Your task to perform on an android device: toggle data saver in the chrome app Image 0: 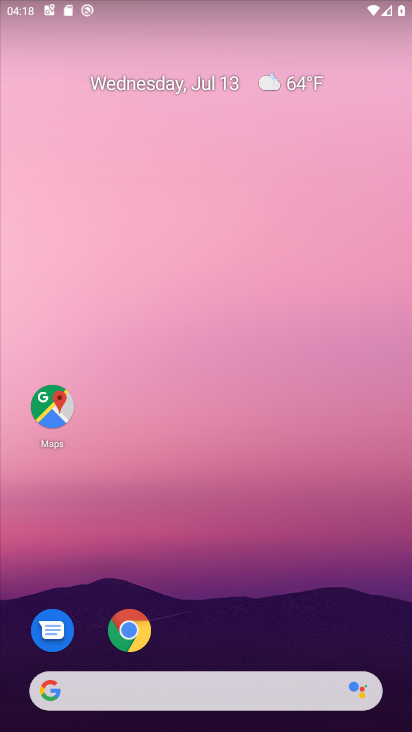
Step 0: click (129, 625)
Your task to perform on an android device: toggle data saver in the chrome app Image 1: 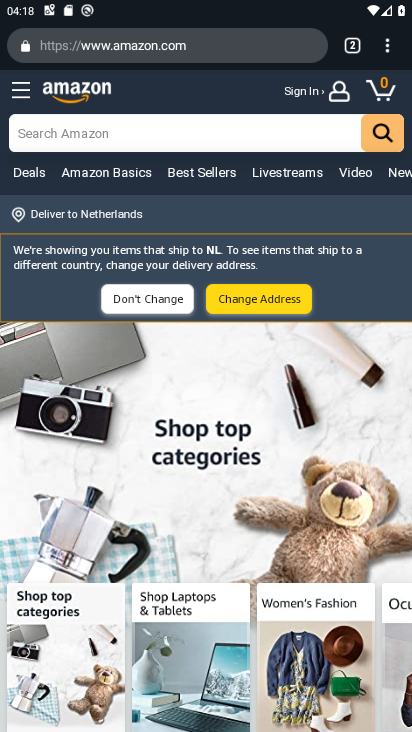
Step 1: click (391, 57)
Your task to perform on an android device: toggle data saver in the chrome app Image 2: 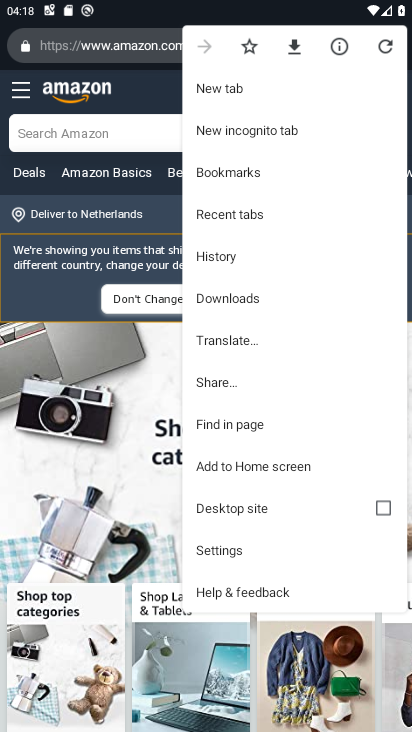
Step 2: click (229, 545)
Your task to perform on an android device: toggle data saver in the chrome app Image 3: 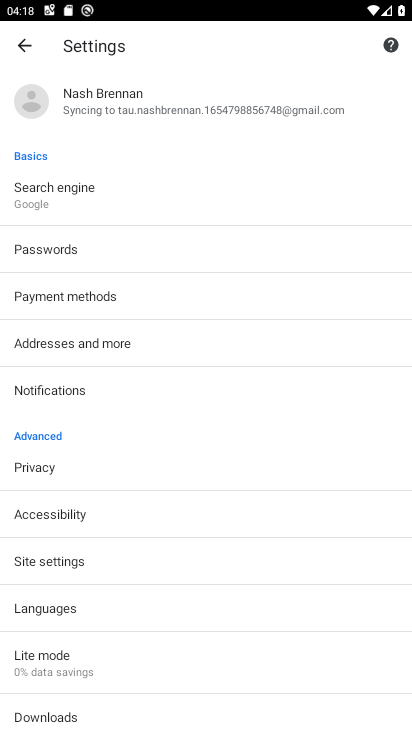
Step 3: click (87, 665)
Your task to perform on an android device: toggle data saver in the chrome app Image 4: 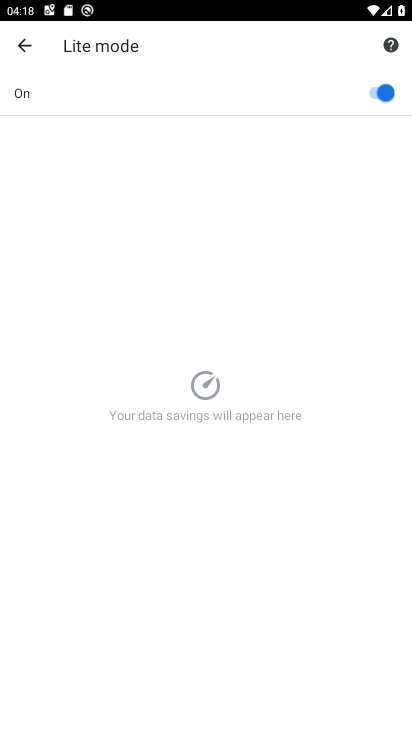
Step 4: click (389, 99)
Your task to perform on an android device: toggle data saver in the chrome app Image 5: 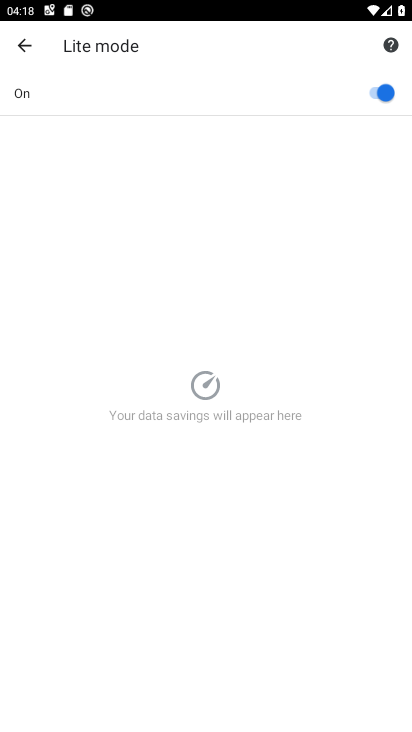
Step 5: click (389, 99)
Your task to perform on an android device: toggle data saver in the chrome app Image 6: 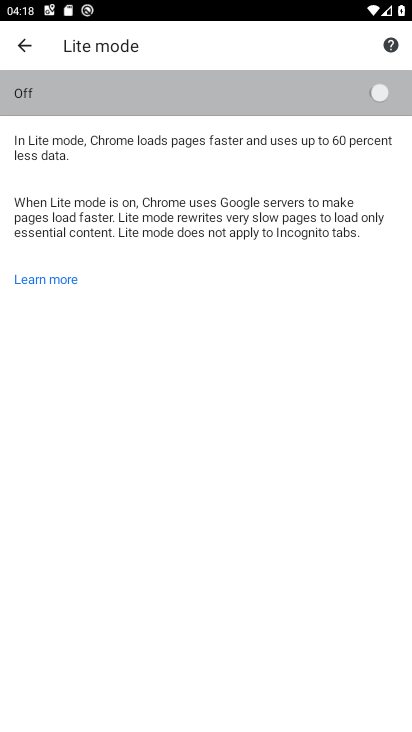
Step 6: click (389, 99)
Your task to perform on an android device: toggle data saver in the chrome app Image 7: 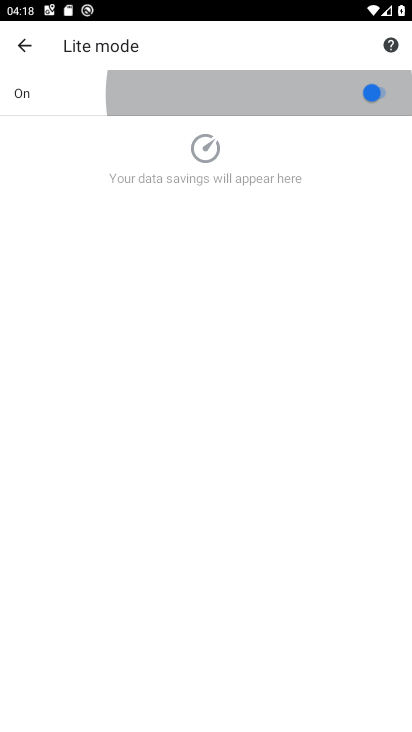
Step 7: click (389, 99)
Your task to perform on an android device: toggle data saver in the chrome app Image 8: 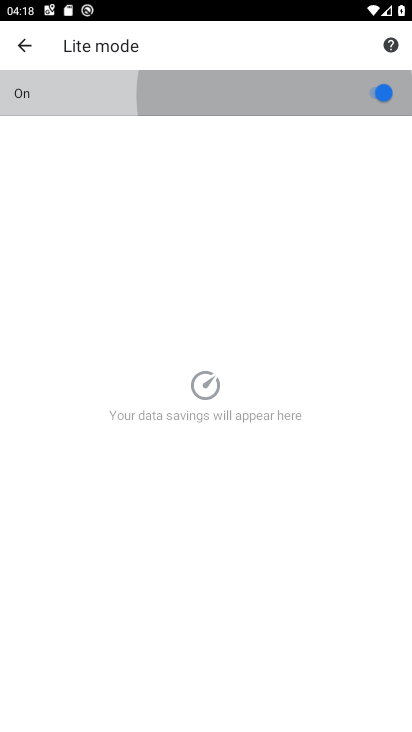
Step 8: click (389, 99)
Your task to perform on an android device: toggle data saver in the chrome app Image 9: 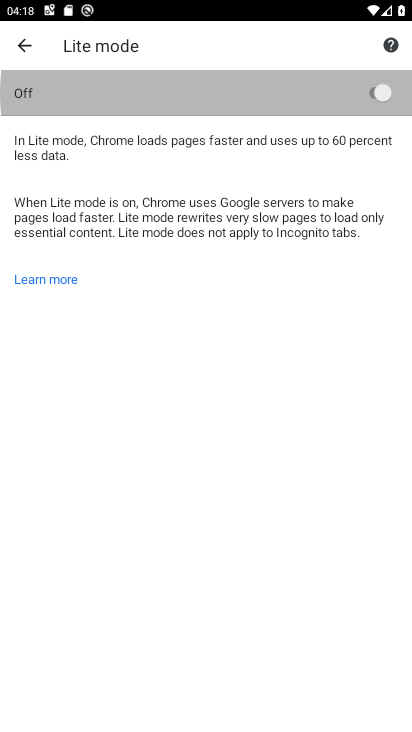
Step 9: click (389, 99)
Your task to perform on an android device: toggle data saver in the chrome app Image 10: 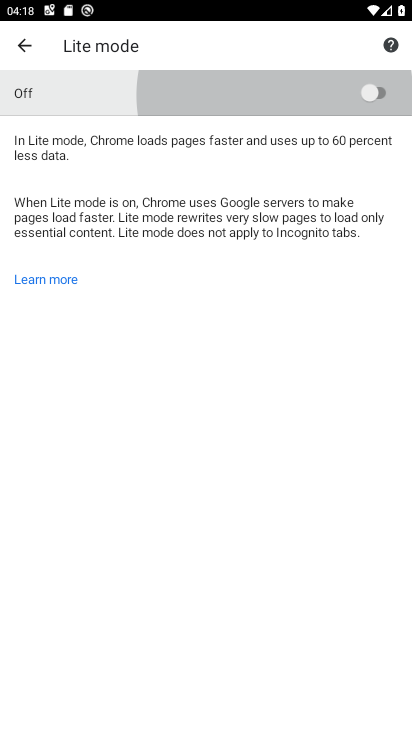
Step 10: click (389, 99)
Your task to perform on an android device: toggle data saver in the chrome app Image 11: 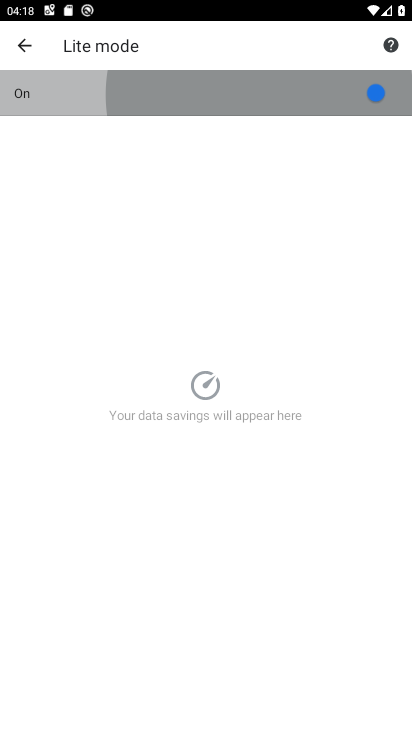
Step 11: click (389, 99)
Your task to perform on an android device: toggle data saver in the chrome app Image 12: 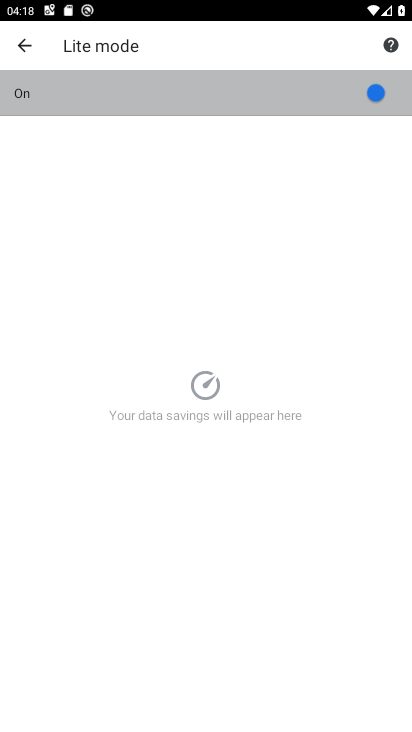
Step 12: click (389, 99)
Your task to perform on an android device: toggle data saver in the chrome app Image 13: 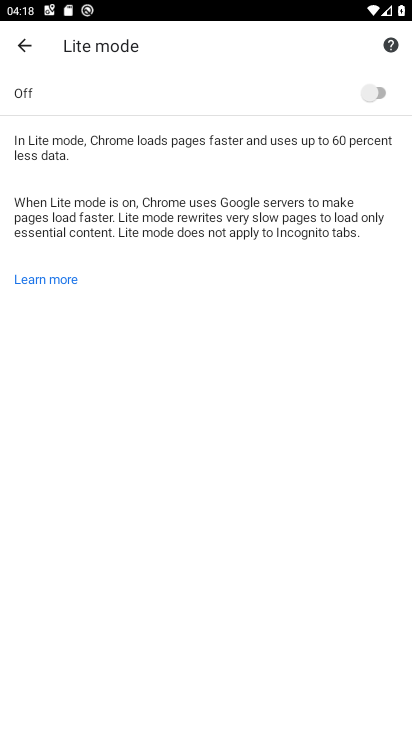
Step 13: task complete